Your task to perform on an android device: turn on the 12-hour format for clock Image 0: 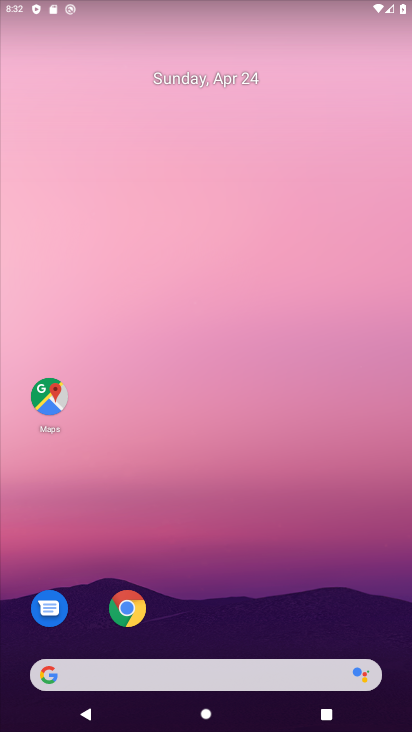
Step 0: drag from (224, 681) to (252, 235)
Your task to perform on an android device: turn on the 12-hour format for clock Image 1: 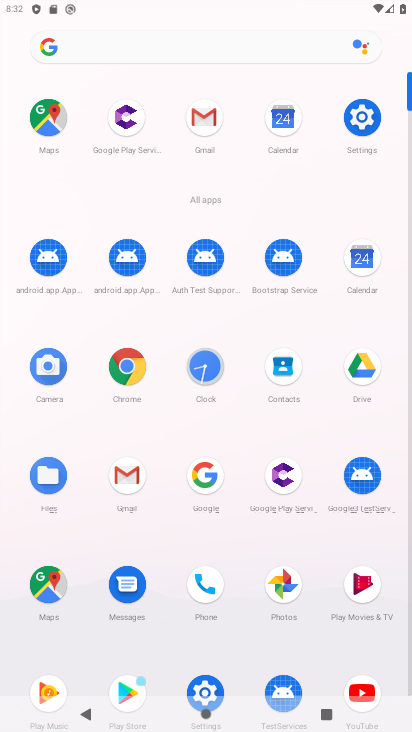
Step 1: click (363, 131)
Your task to perform on an android device: turn on the 12-hour format for clock Image 2: 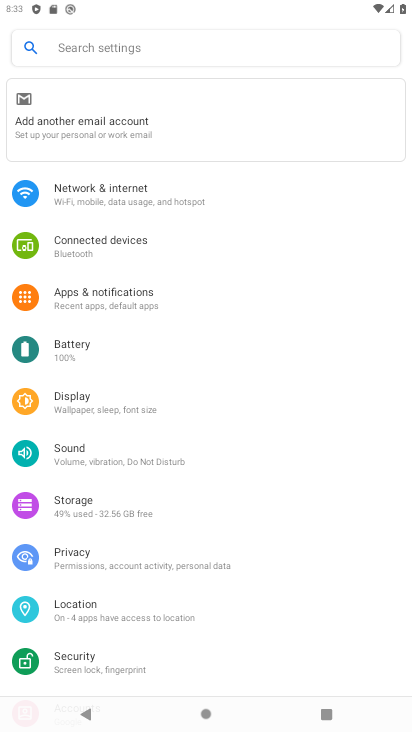
Step 2: press home button
Your task to perform on an android device: turn on the 12-hour format for clock Image 3: 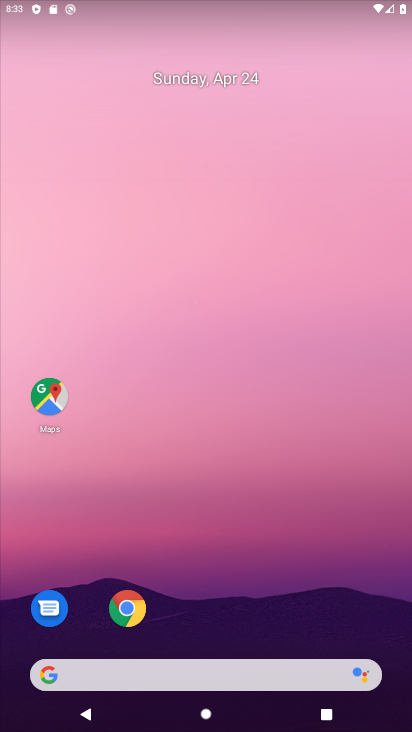
Step 3: drag from (221, 695) to (304, 52)
Your task to perform on an android device: turn on the 12-hour format for clock Image 4: 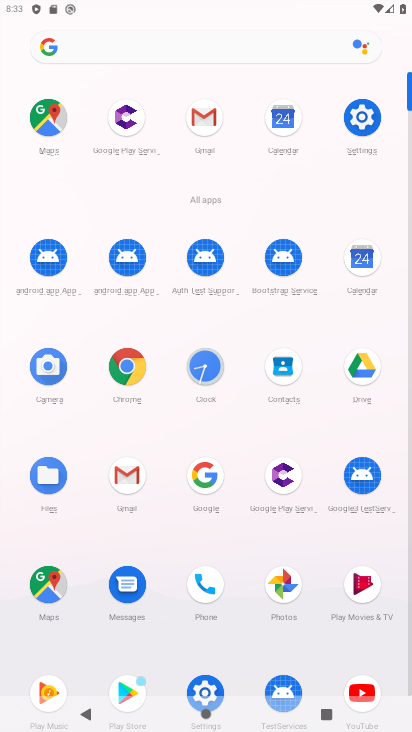
Step 4: click (193, 364)
Your task to perform on an android device: turn on the 12-hour format for clock Image 5: 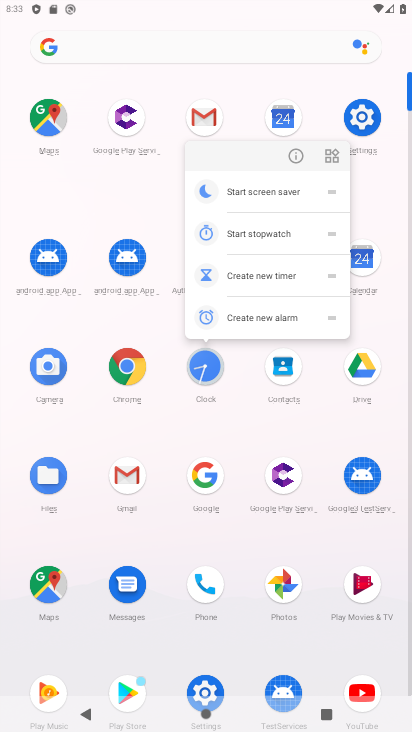
Step 5: click (204, 368)
Your task to perform on an android device: turn on the 12-hour format for clock Image 6: 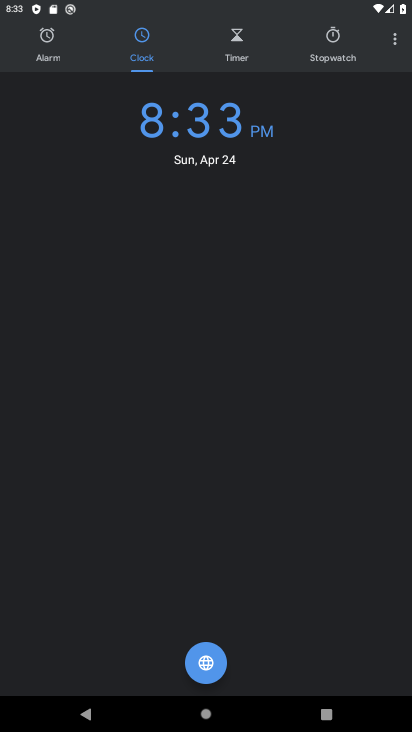
Step 6: click (388, 51)
Your task to perform on an android device: turn on the 12-hour format for clock Image 7: 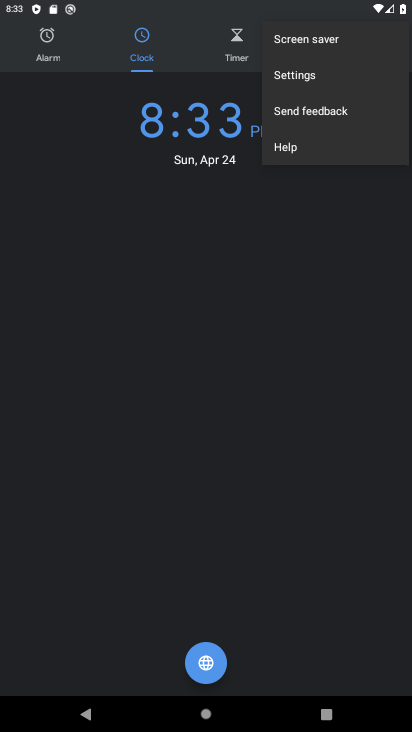
Step 7: click (293, 80)
Your task to perform on an android device: turn on the 12-hour format for clock Image 8: 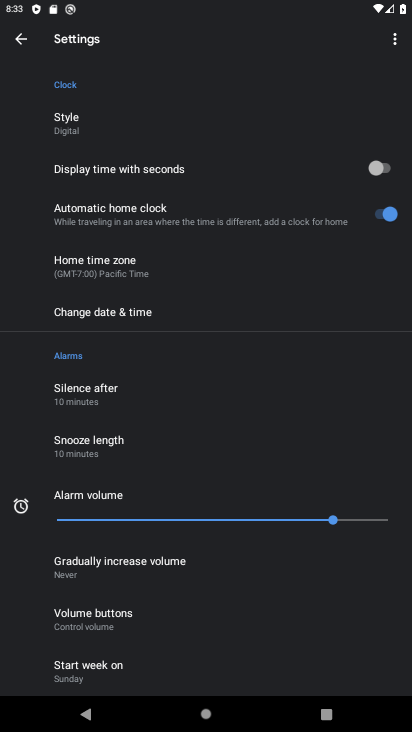
Step 8: click (158, 303)
Your task to perform on an android device: turn on the 12-hour format for clock Image 9: 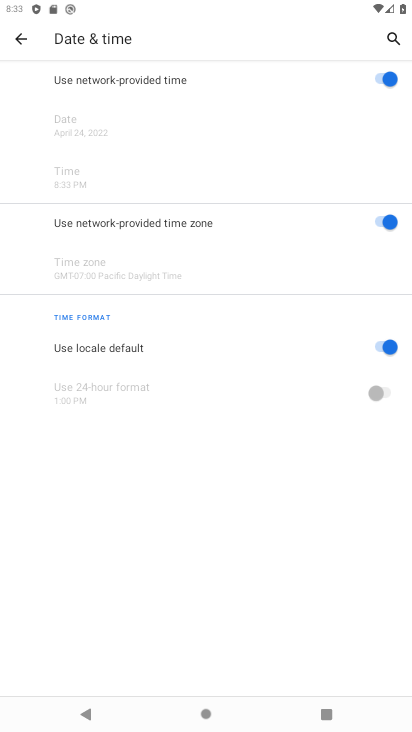
Step 9: click (380, 344)
Your task to perform on an android device: turn on the 12-hour format for clock Image 10: 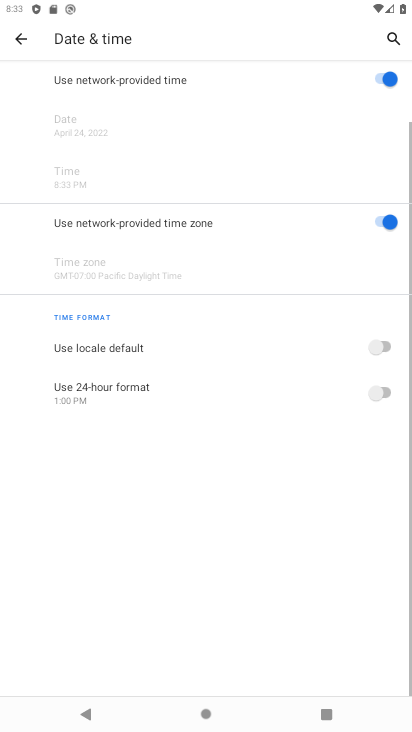
Step 10: click (378, 392)
Your task to perform on an android device: turn on the 12-hour format for clock Image 11: 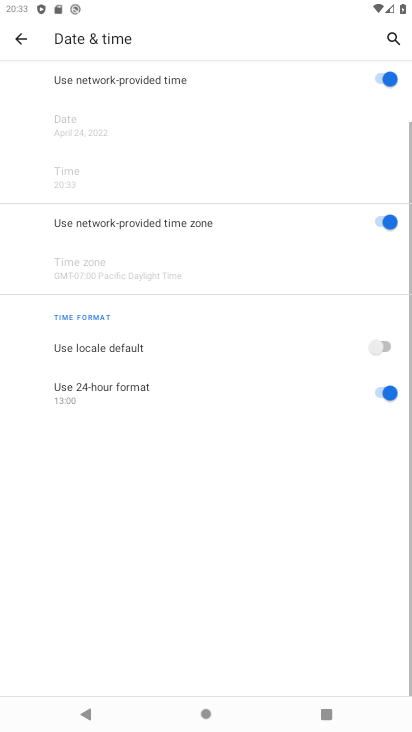
Step 11: click (408, 364)
Your task to perform on an android device: turn on the 12-hour format for clock Image 12: 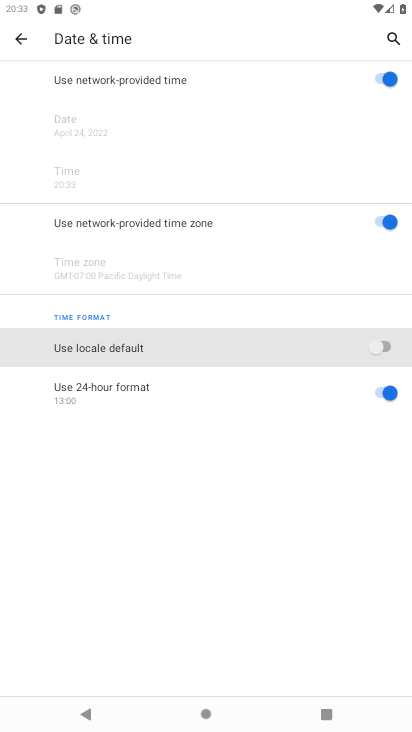
Step 12: task complete